Your task to perform on an android device: Clear all items from cart on amazon. Search for acer nitro on amazon, select the first entry, add it to the cart, then select checkout. Image 0: 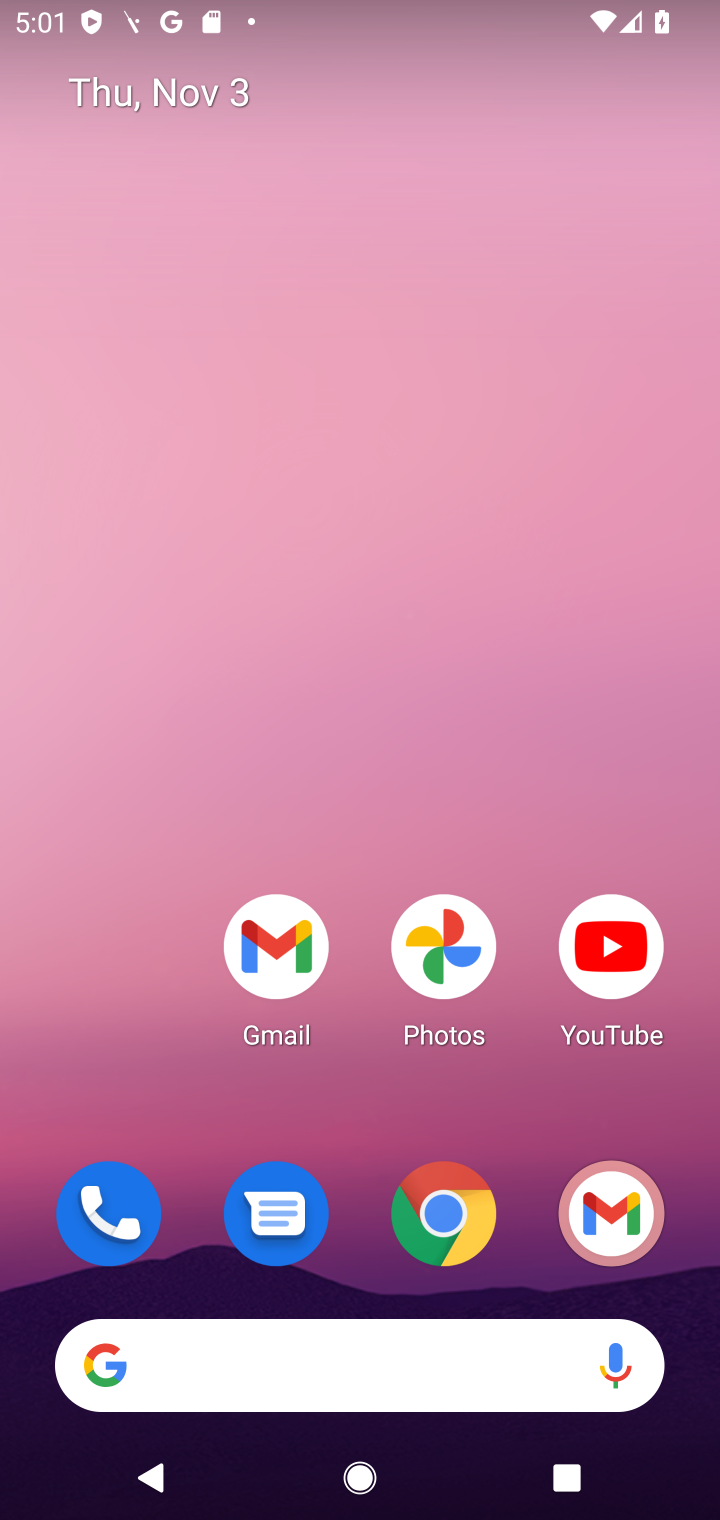
Step 0: click (437, 1222)
Your task to perform on an android device: Clear all items from cart on amazon. Search for acer nitro on amazon, select the first entry, add it to the cart, then select checkout. Image 1: 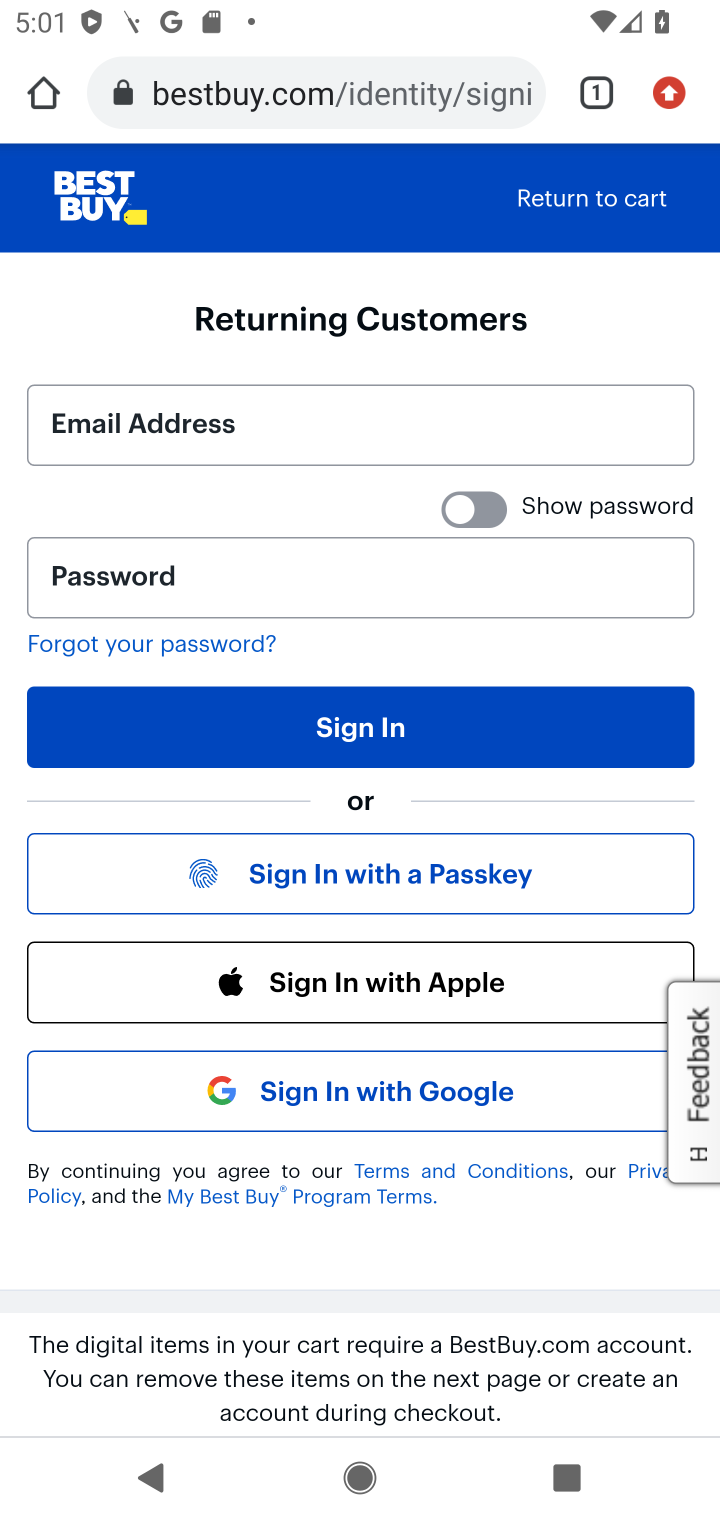
Step 1: click (372, 83)
Your task to perform on an android device: Clear all items from cart on amazon. Search for acer nitro on amazon, select the first entry, add it to the cart, then select checkout. Image 2: 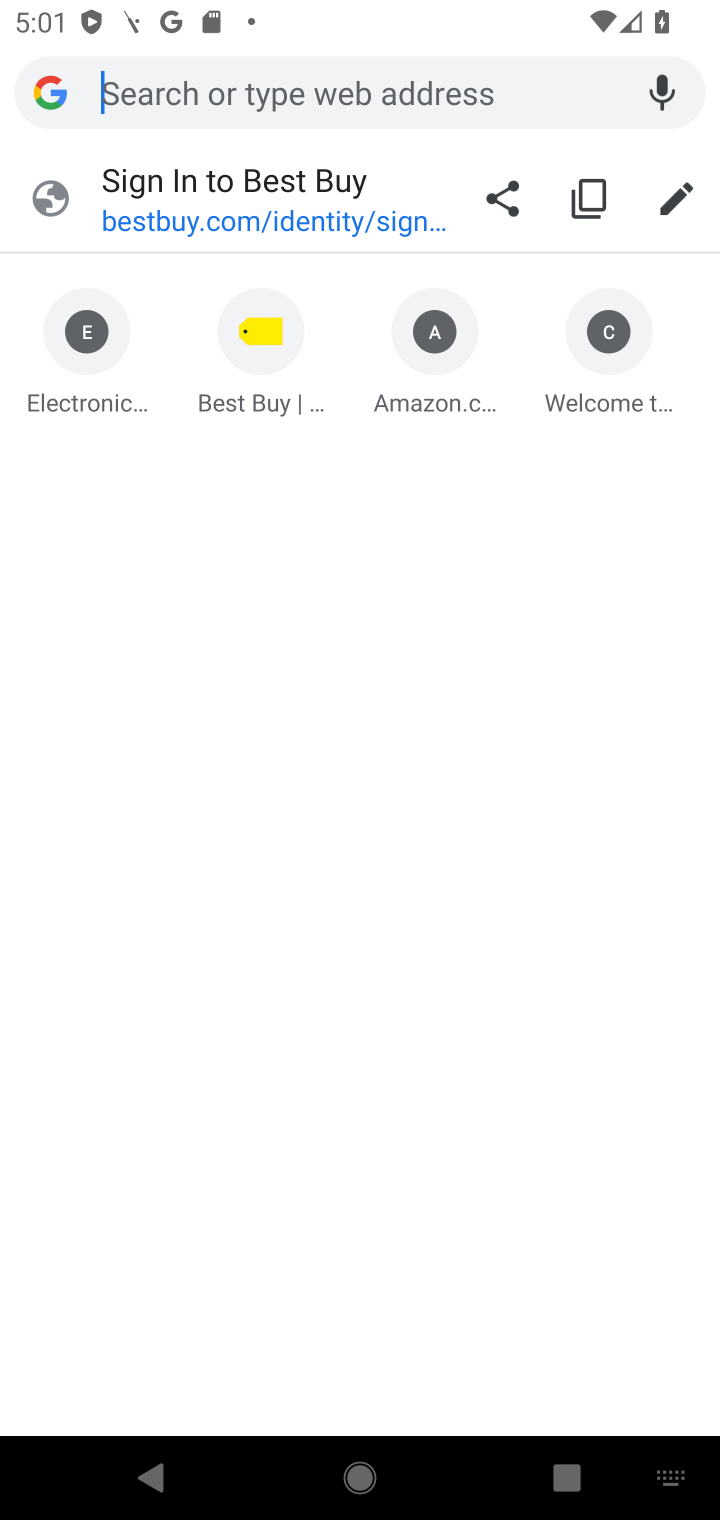
Step 2: click (449, 384)
Your task to perform on an android device: Clear all items from cart on amazon. Search for acer nitro on amazon, select the first entry, add it to the cart, then select checkout. Image 3: 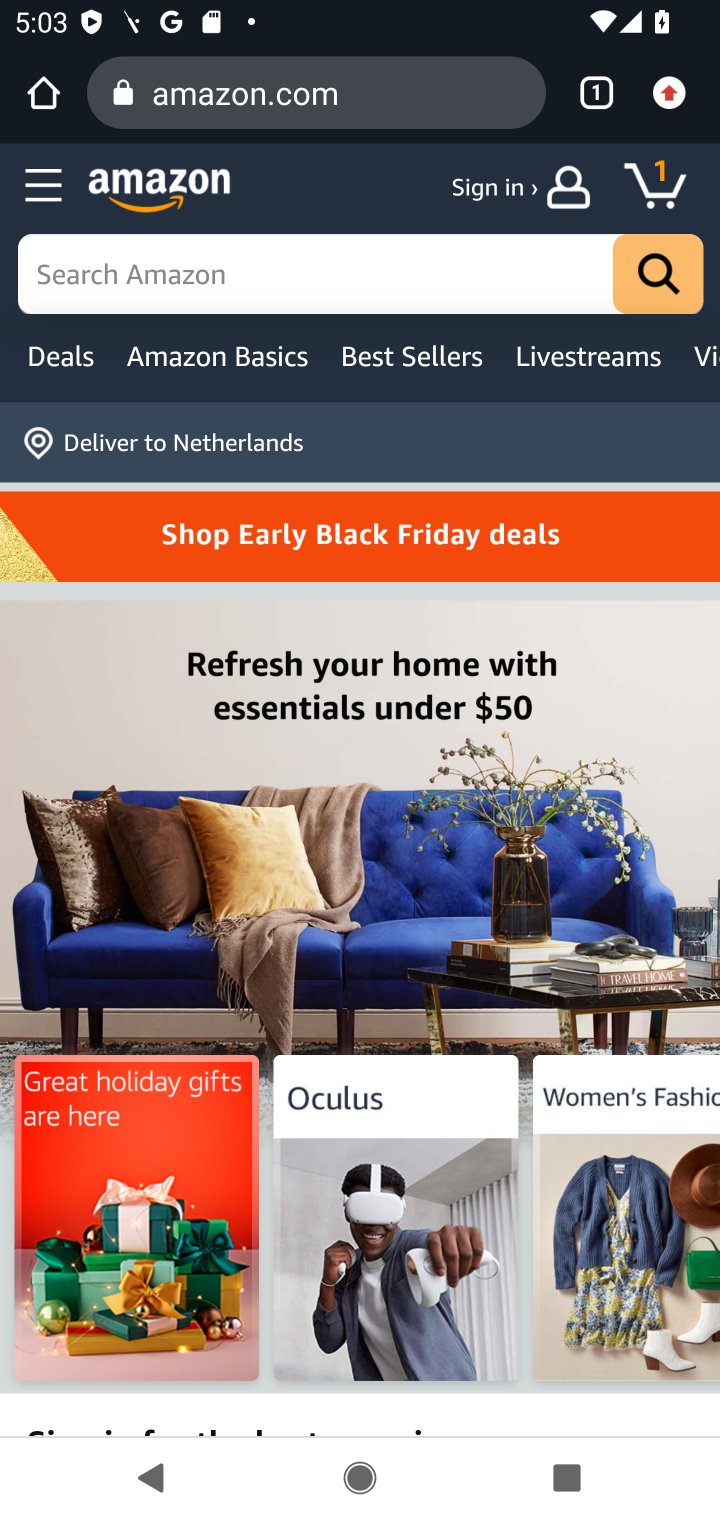
Step 3: click (329, 286)
Your task to perform on an android device: Clear all items from cart on amazon. Search for acer nitro on amazon, select the first entry, add it to the cart, then select checkout. Image 4: 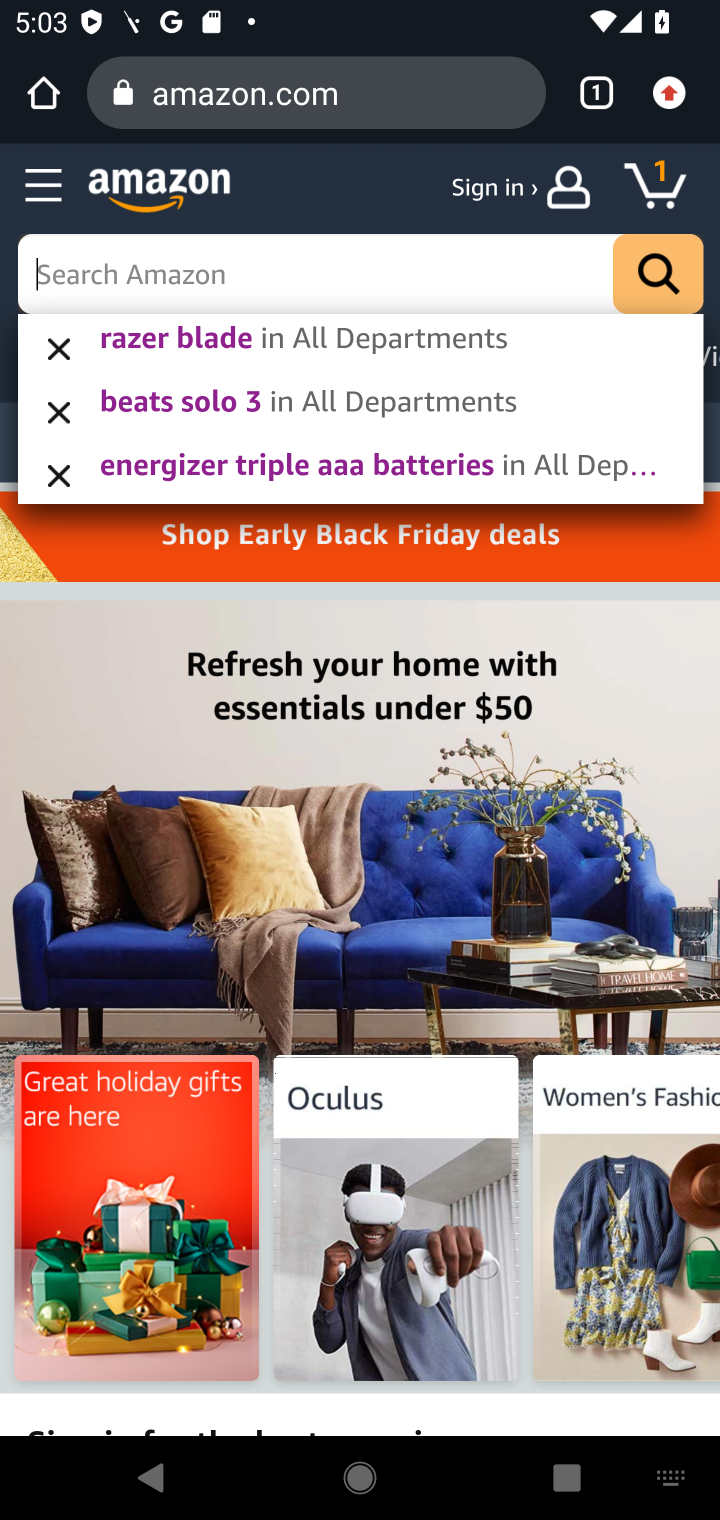
Step 4: type "acer nitro "
Your task to perform on an android device: Clear all items from cart on amazon. Search for acer nitro on amazon, select the first entry, add it to the cart, then select checkout. Image 5: 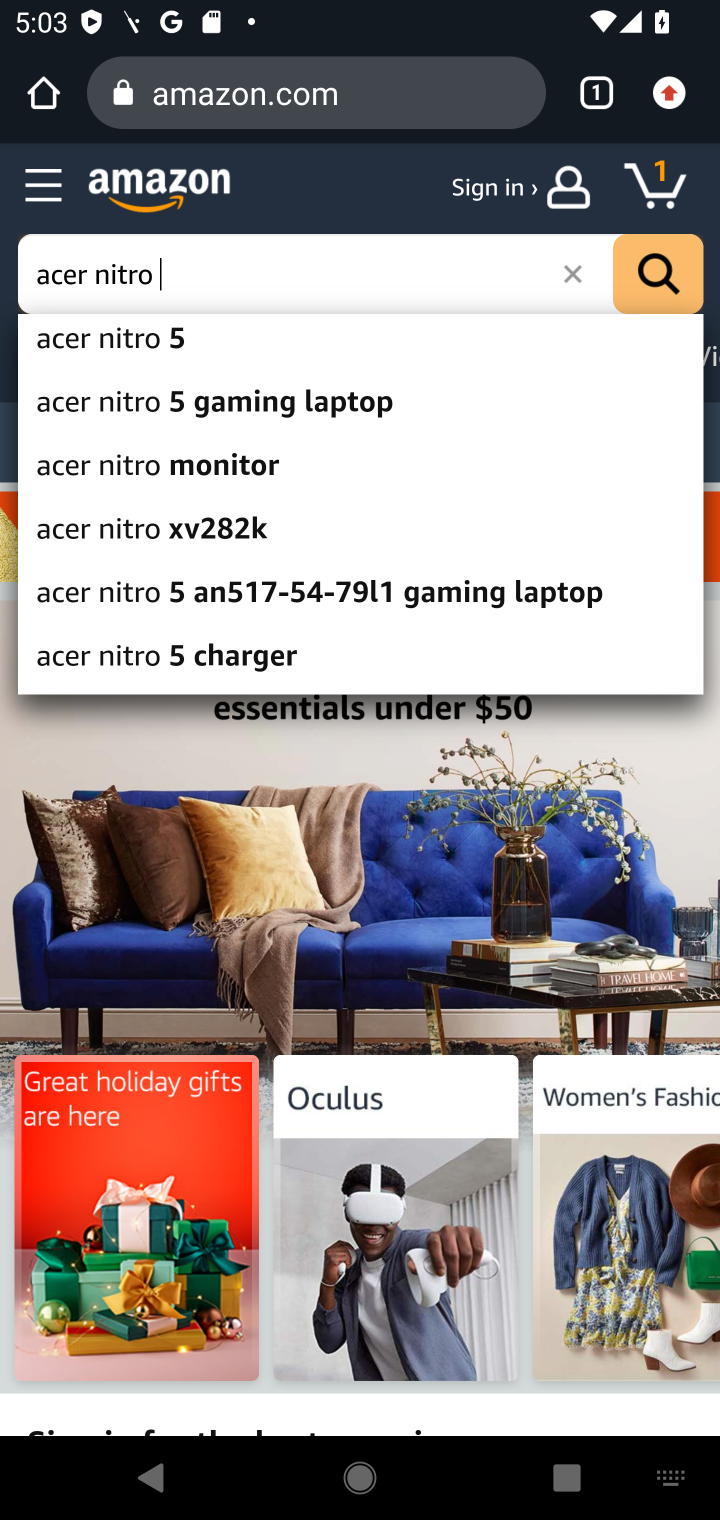
Step 5: click (650, 267)
Your task to perform on an android device: Clear all items from cart on amazon. Search for acer nitro on amazon, select the first entry, add it to the cart, then select checkout. Image 6: 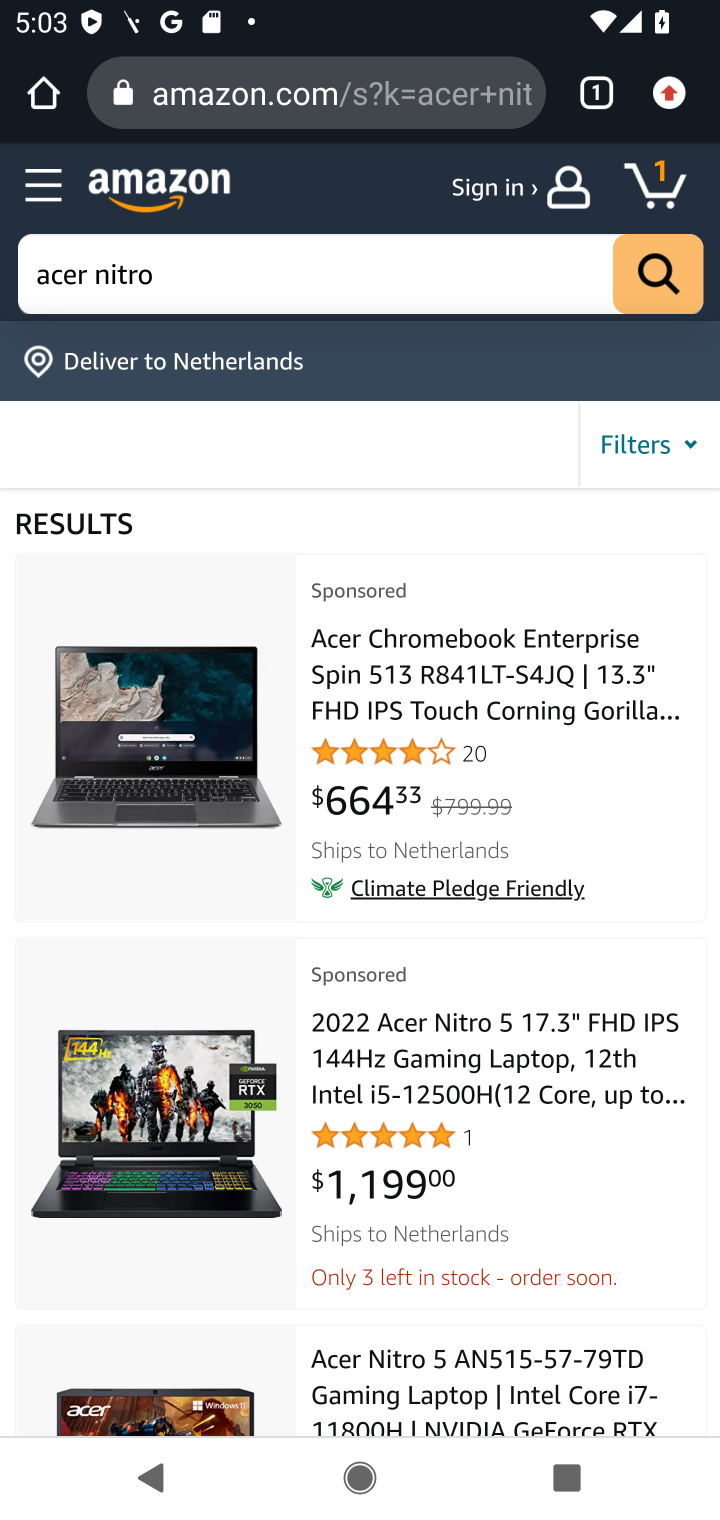
Step 6: click (228, 748)
Your task to perform on an android device: Clear all items from cart on amazon. Search for acer nitro on amazon, select the first entry, add it to the cart, then select checkout. Image 7: 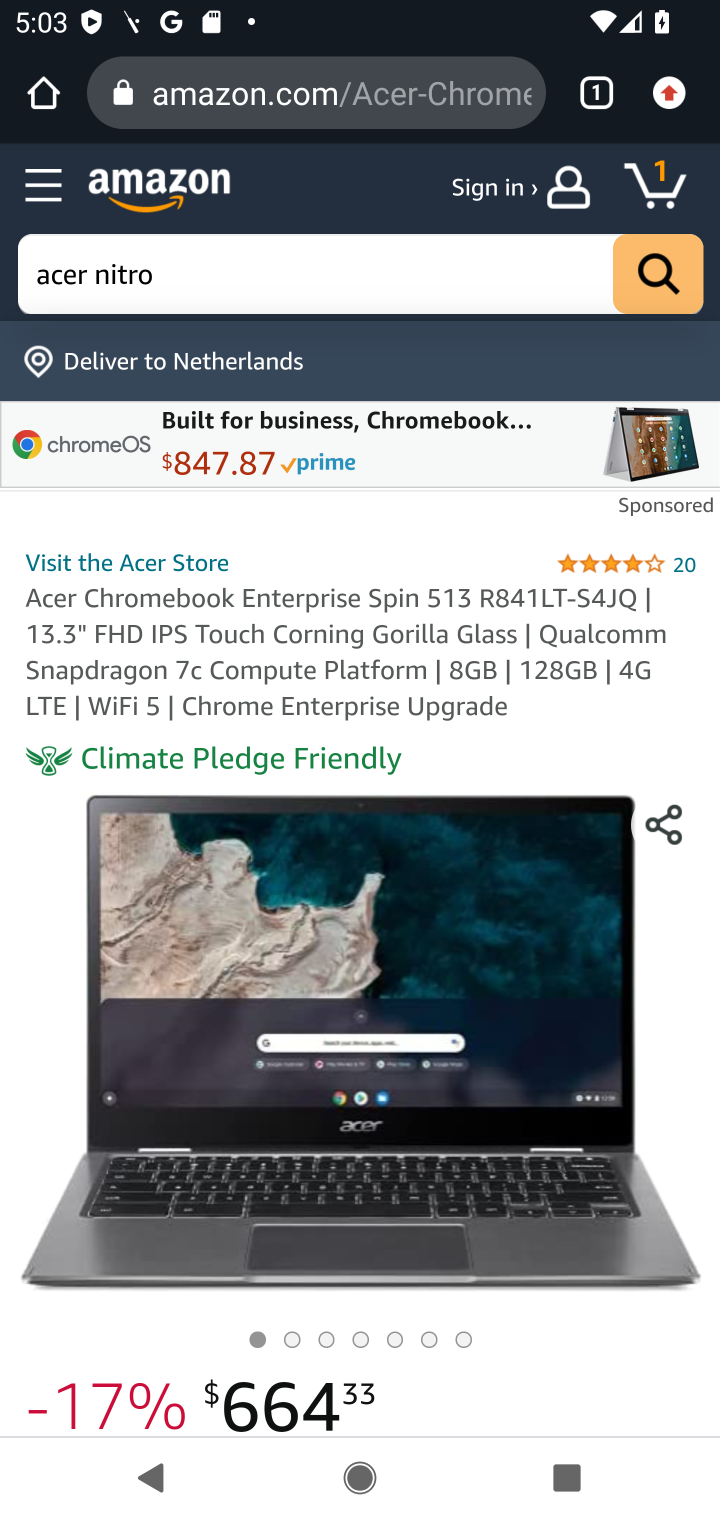
Step 7: task complete